Your task to perform on an android device: Open Android settings Image 0: 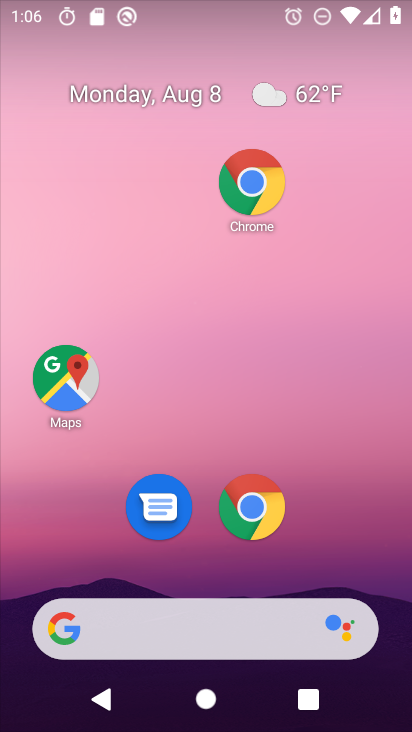
Step 0: drag from (217, 439) to (177, 0)
Your task to perform on an android device: Open Android settings Image 1: 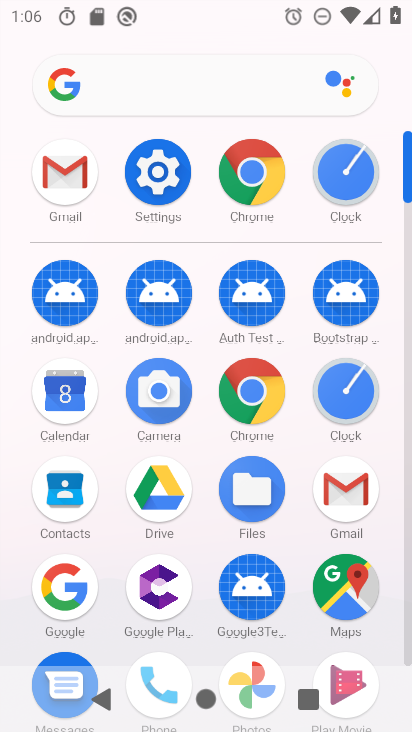
Step 1: click (161, 181)
Your task to perform on an android device: Open Android settings Image 2: 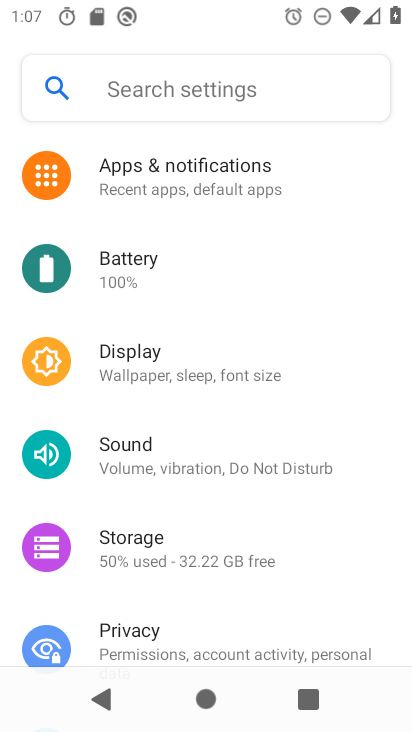
Step 2: task complete